Your task to perform on an android device: Open accessibility settings Image 0: 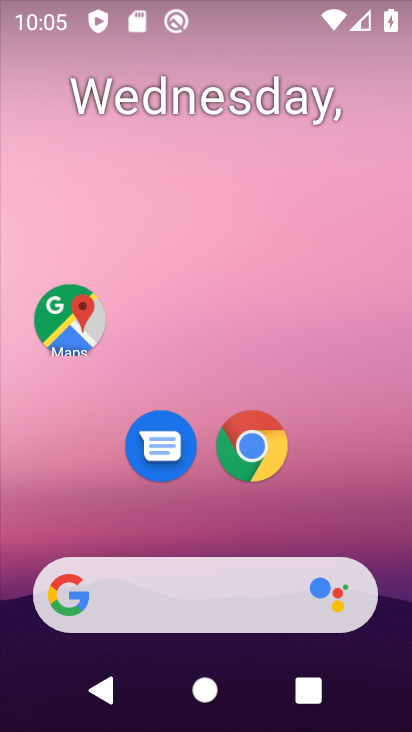
Step 0: drag from (321, 513) to (377, 127)
Your task to perform on an android device: Open accessibility settings Image 1: 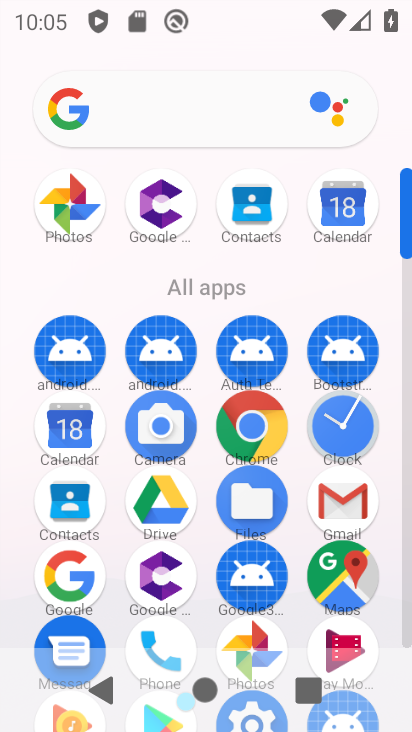
Step 1: drag from (304, 625) to (334, 391)
Your task to perform on an android device: Open accessibility settings Image 2: 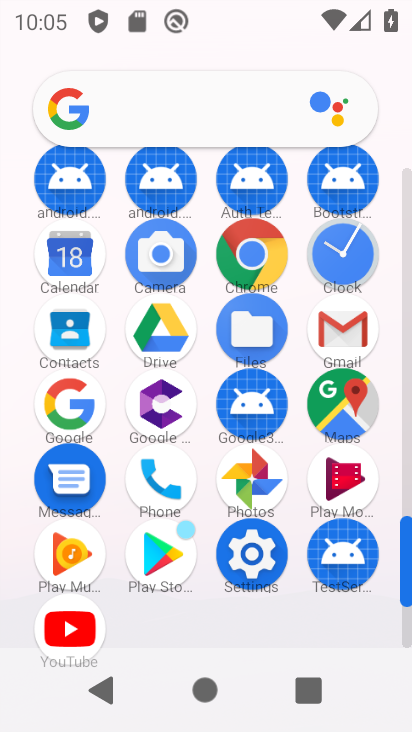
Step 2: click (281, 542)
Your task to perform on an android device: Open accessibility settings Image 3: 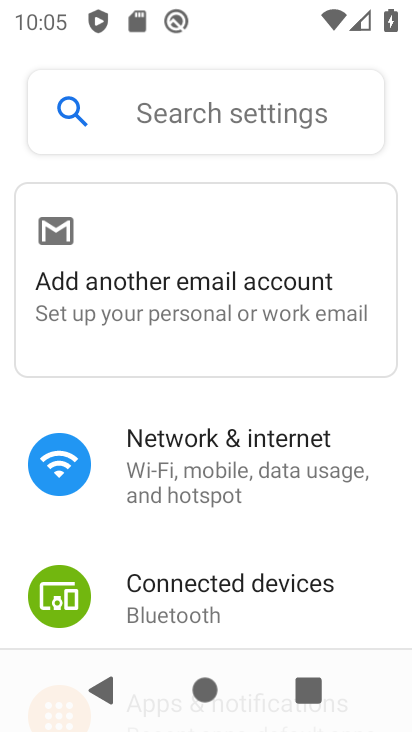
Step 3: drag from (281, 542) to (319, 184)
Your task to perform on an android device: Open accessibility settings Image 4: 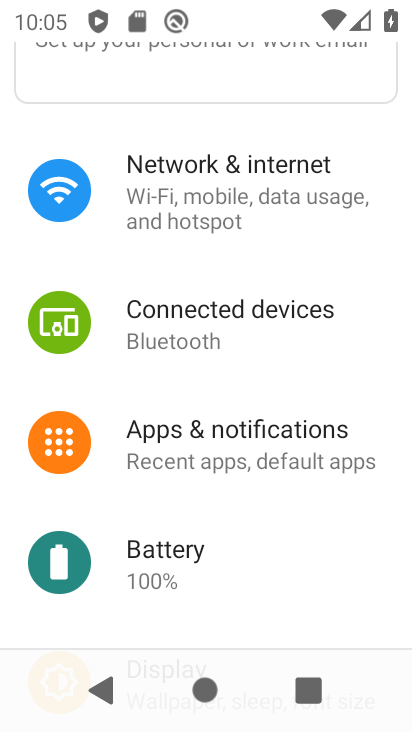
Step 4: drag from (269, 585) to (274, 122)
Your task to perform on an android device: Open accessibility settings Image 5: 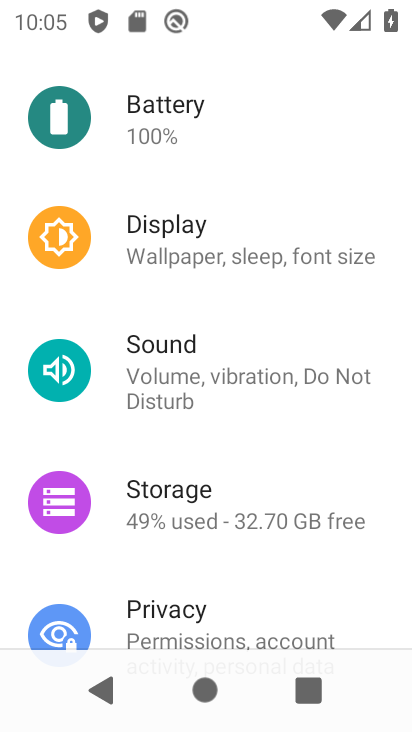
Step 5: drag from (295, 527) to (296, 160)
Your task to perform on an android device: Open accessibility settings Image 6: 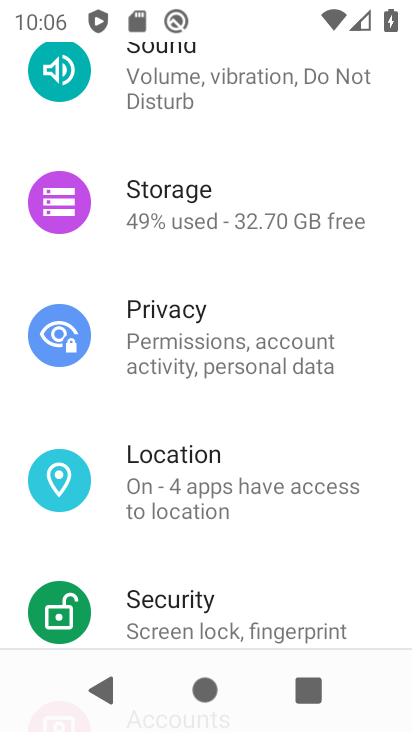
Step 6: drag from (285, 594) to (303, 180)
Your task to perform on an android device: Open accessibility settings Image 7: 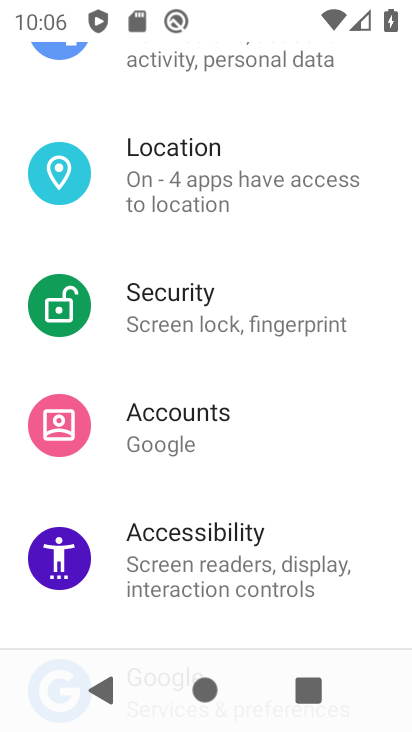
Step 7: click (254, 577)
Your task to perform on an android device: Open accessibility settings Image 8: 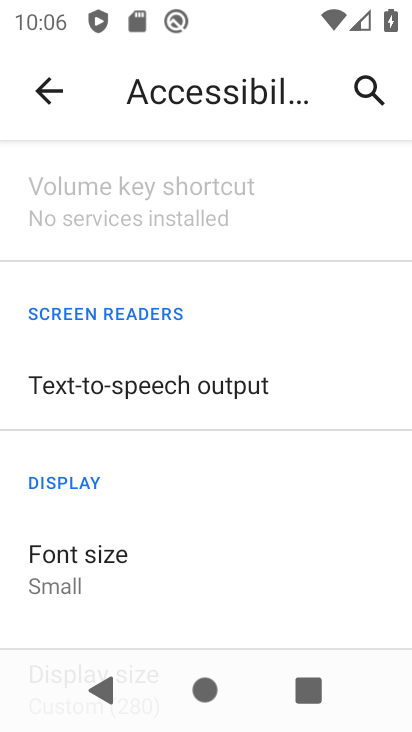
Step 8: task complete